Your task to perform on an android device: Google the capital of Canada Image 0: 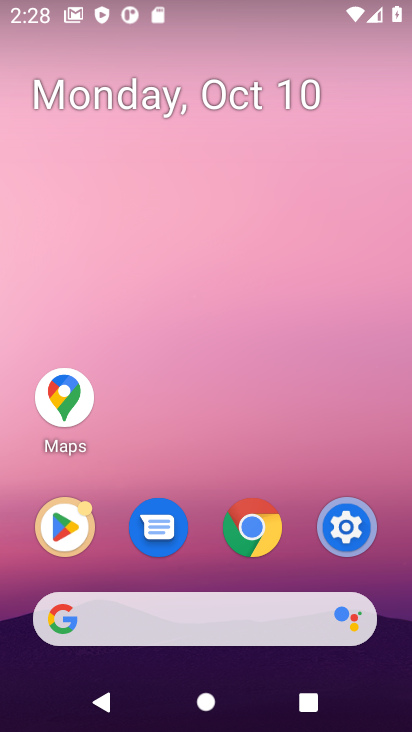
Step 0: press home button
Your task to perform on an android device: Google the capital of Canada Image 1: 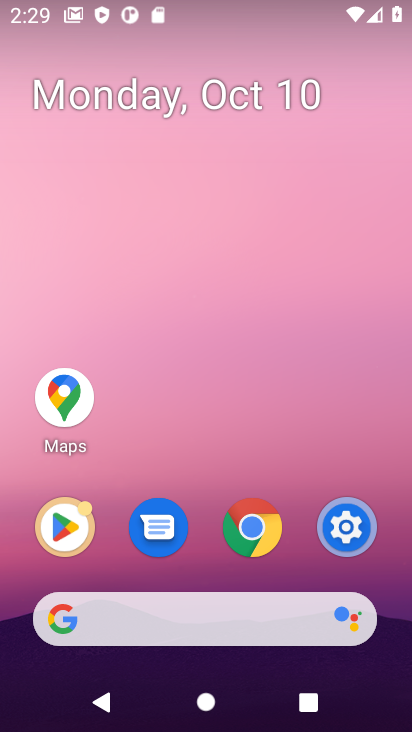
Step 1: click (189, 623)
Your task to perform on an android device: Google the capital of Canada Image 2: 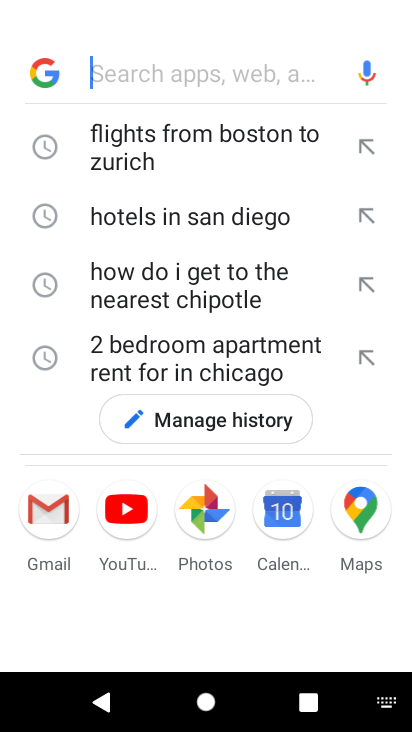
Step 2: type "Google the capital of Canada"
Your task to perform on an android device: Google the capital of Canada Image 3: 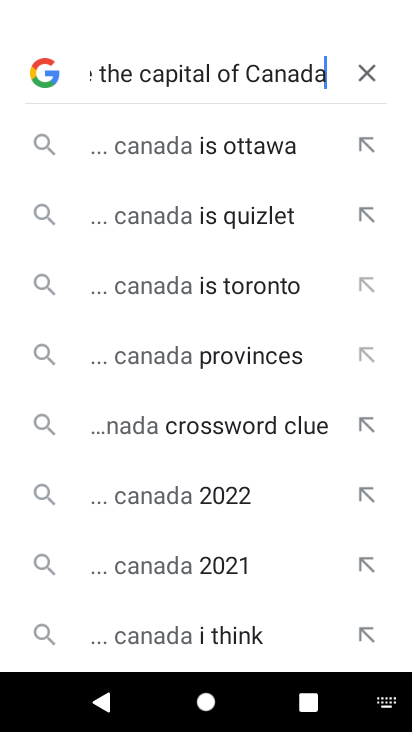
Step 3: press enter
Your task to perform on an android device: Google the capital of Canada Image 4: 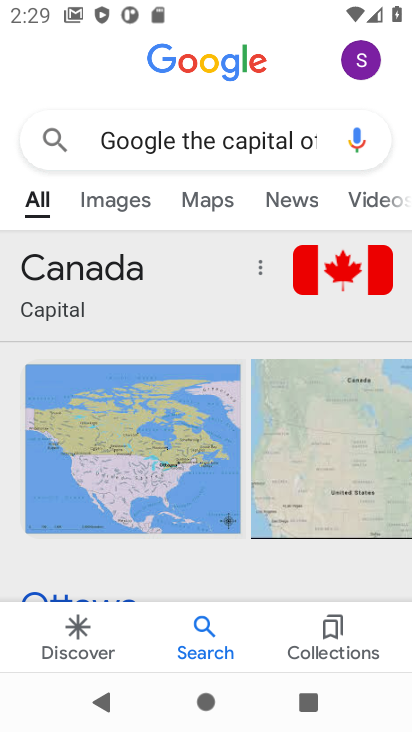
Step 4: task complete